Your task to perform on an android device: change the clock display to digital Image 0: 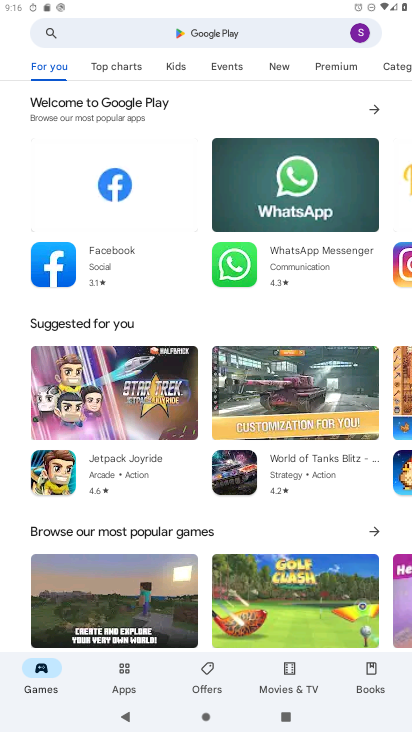
Step 0: press home button
Your task to perform on an android device: change the clock display to digital Image 1: 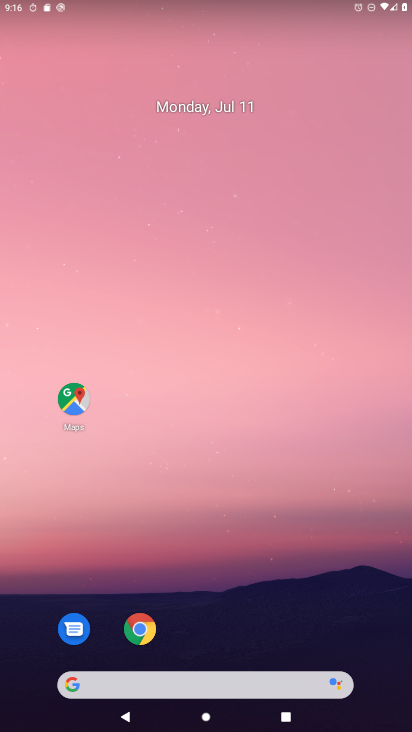
Step 1: drag from (224, 581) to (272, 122)
Your task to perform on an android device: change the clock display to digital Image 2: 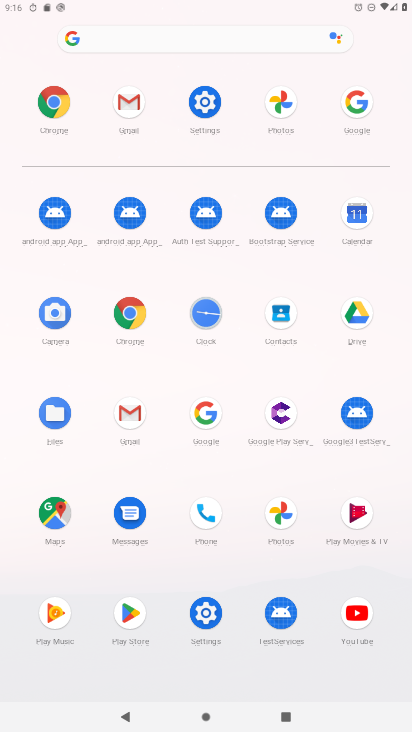
Step 2: click (209, 310)
Your task to perform on an android device: change the clock display to digital Image 3: 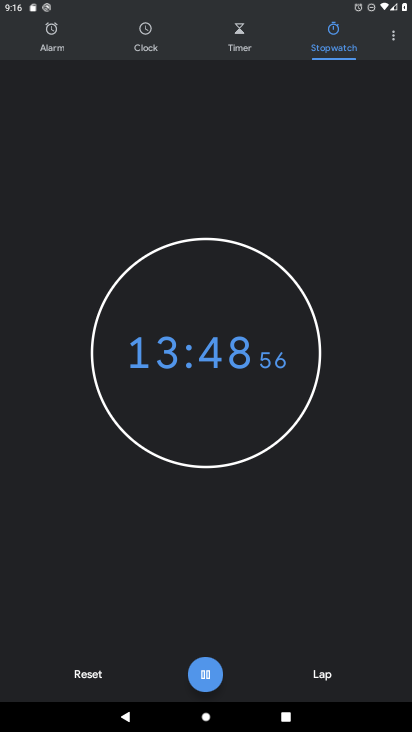
Step 3: click (392, 33)
Your task to perform on an android device: change the clock display to digital Image 4: 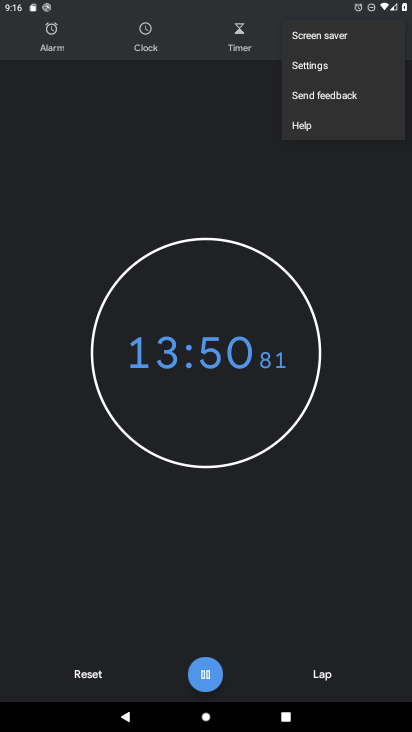
Step 4: click (328, 62)
Your task to perform on an android device: change the clock display to digital Image 5: 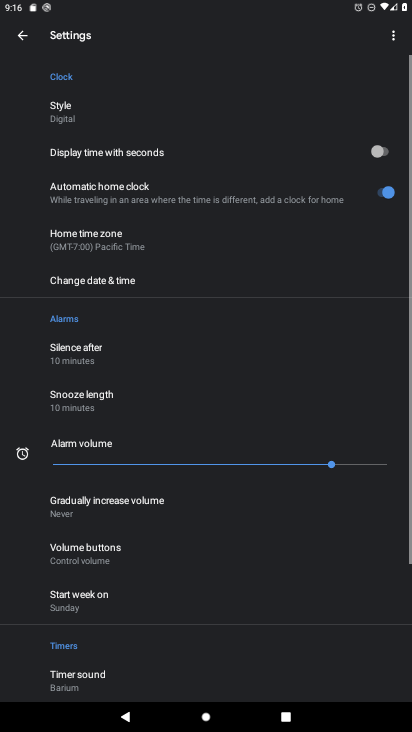
Step 5: click (98, 124)
Your task to perform on an android device: change the clock display to digital Image 6: 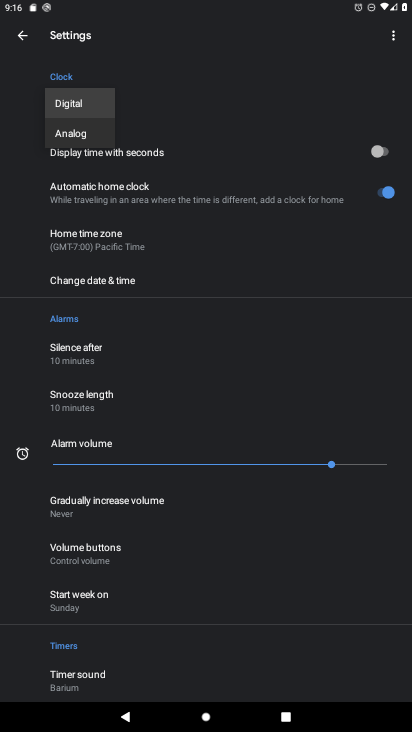
Step 6: click (86, 105)
Your task to perform on an android device: change the clock display to digital Image 7: 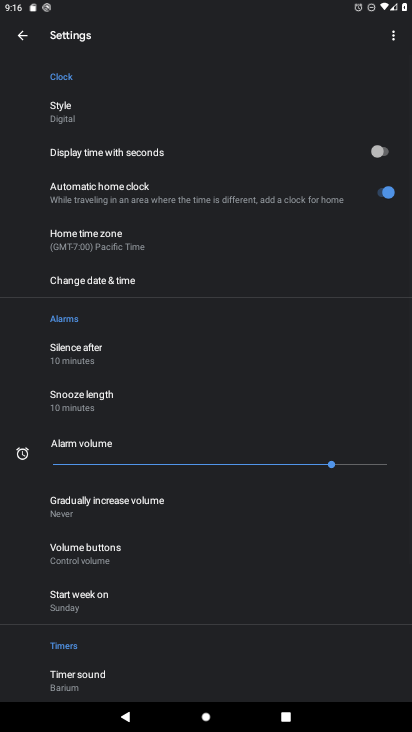
Step 7: task complete